Your task to perform on an android device: Go to Yahoo.com Image 0: 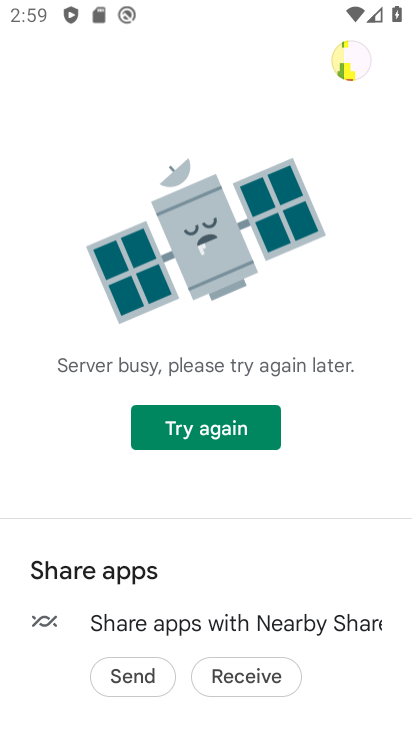
Step 0: press home button
Your task to perform on an android device: Go to Yahoo.com Image 1: 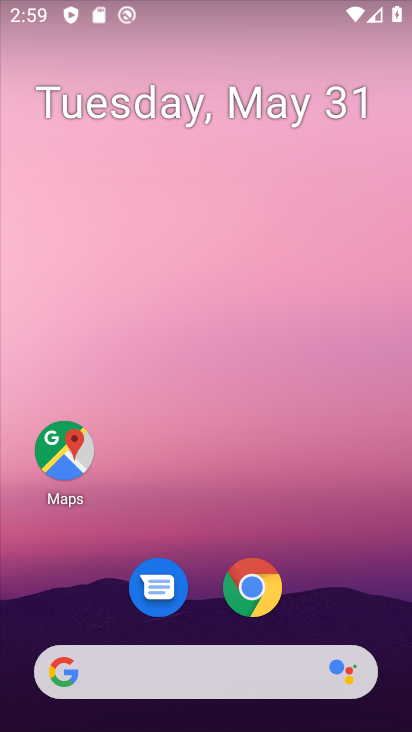
Step 1: click (252, 588)
Your task to perform on an android device: Go to Yahoo.com Image 2: 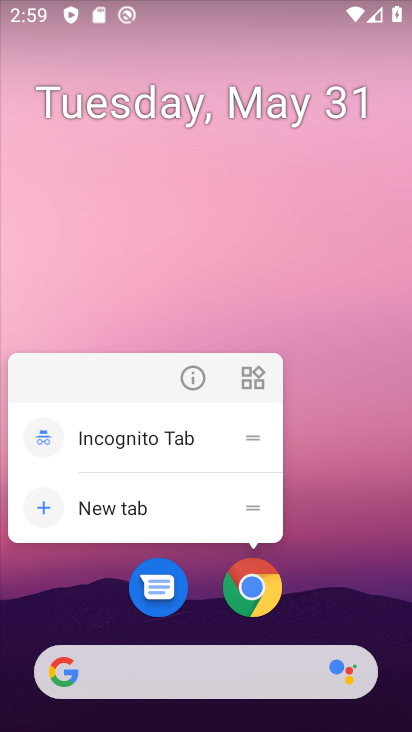
Step 2: click (250, 588)
Your task to perform on an android device: Go to Yahoo.com Image 3: 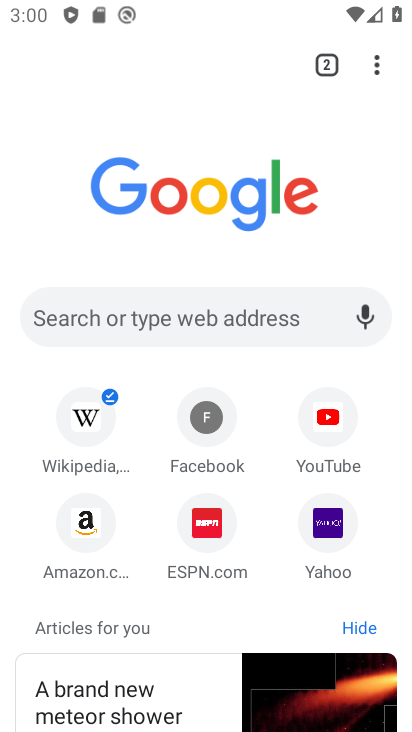
Step 3: click (339, 525)
Your task to perform on an android device: Go to Yahoo.com Image 4: 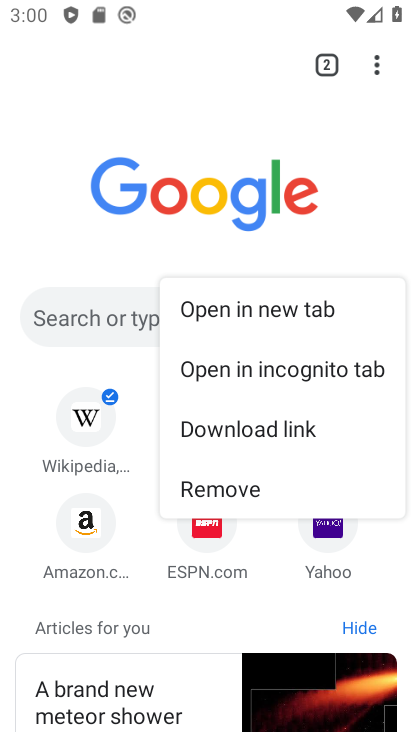
Step 4: click (334, 524)
Your task to perform on an android device: Go to Yahoo.com Image 5: 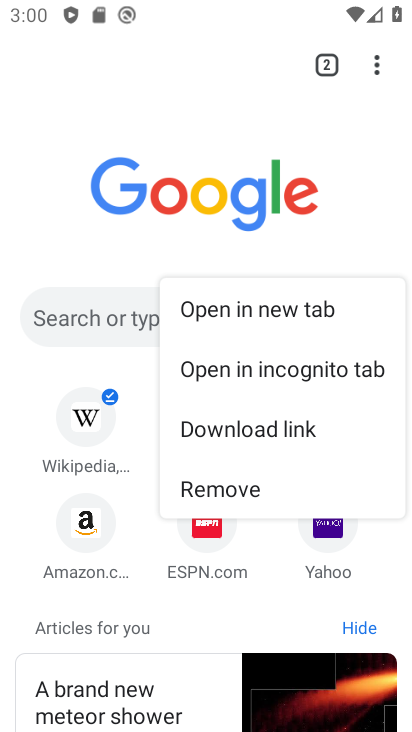
Step 5: click (306, 529)
Your task to perform on an android device: Go to Yahoo.com Image 6: 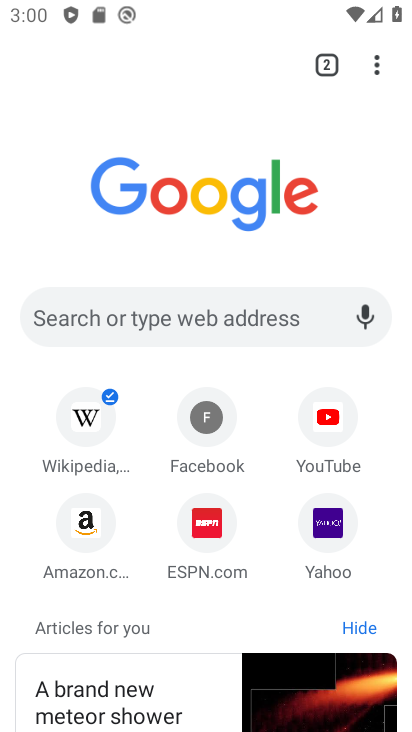
Step 6: click (330, 532)
Your task to perform on an android device: Go to Yahoo.com Image 7: 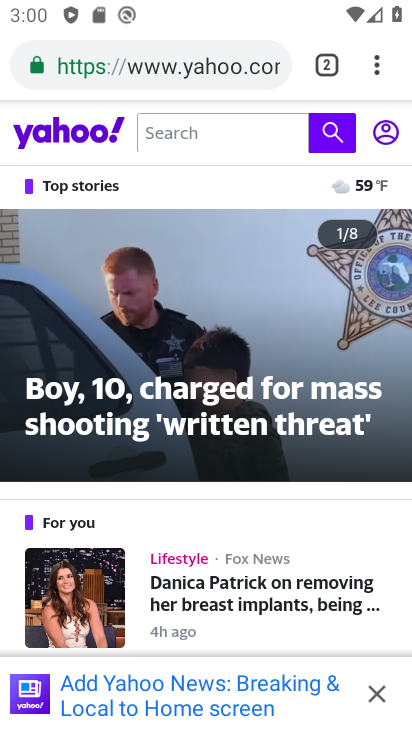
Step 7: task complete